Your task to perform on an android device: What's the weather today? Image 0: 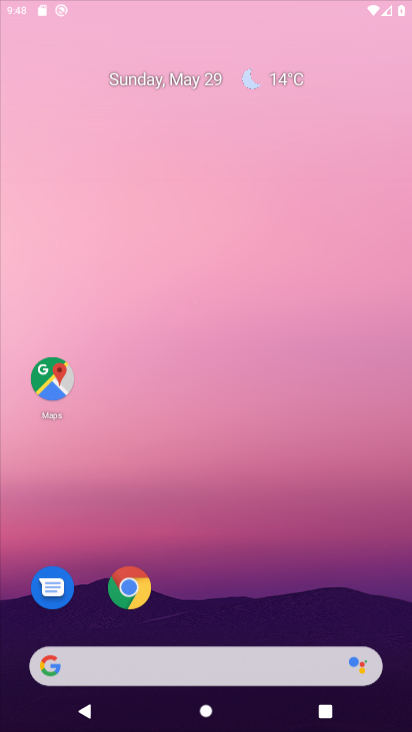
Step 0: click (186, 139)
Your task to perform on an android device: What's the weather today? Image 1: 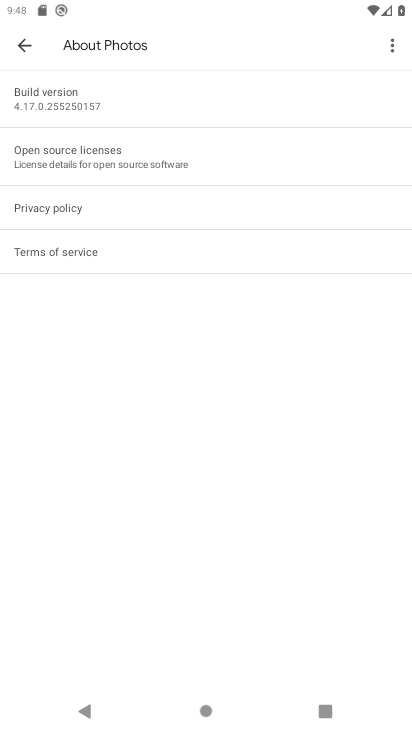
Step 1: press back button
Your task to perform on an android device: What's the weather today? Image 2: 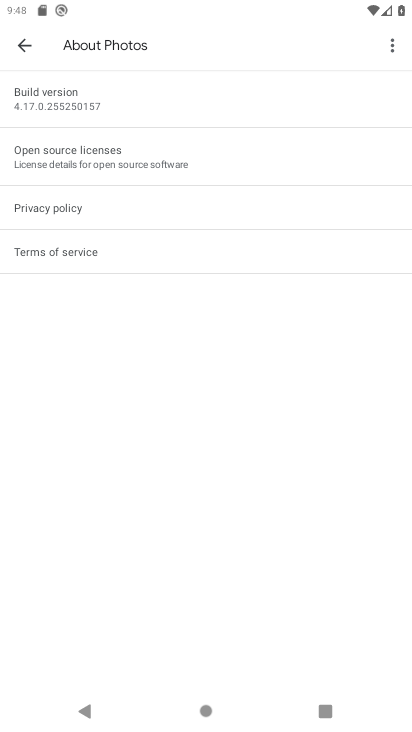
Step 2: press back button
Your task to perform on an android device: What's the weather today? Image 3: 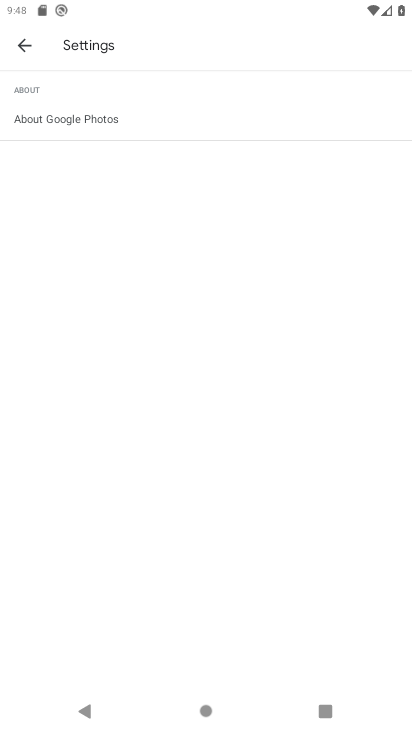
Step 3: press back button
Your task to perform on an android device: What's the weather today? Image 4: 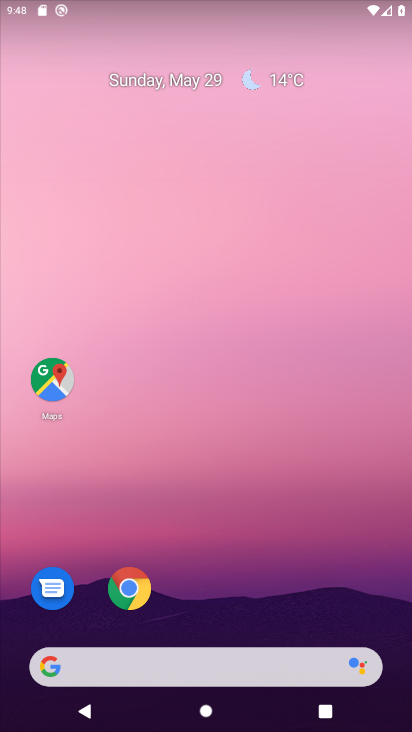
Step 4: click (24, 84)
Your task to perform on an android device: What's the weather today? Image 5: 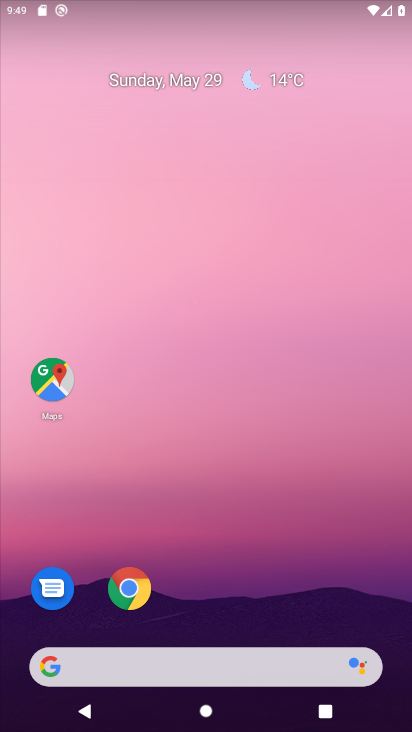
Step 5: drag from (5, 192) to (406, 428)
Your task to perform on an android device: What's the weather today? Image 6: 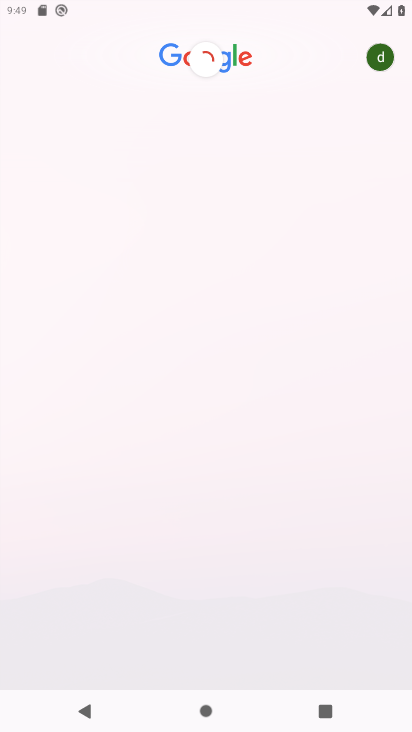
Step 6: drag from (30, 160) to (377, 436)
Your task to perform on an android device: What's the weather today? Image 7: 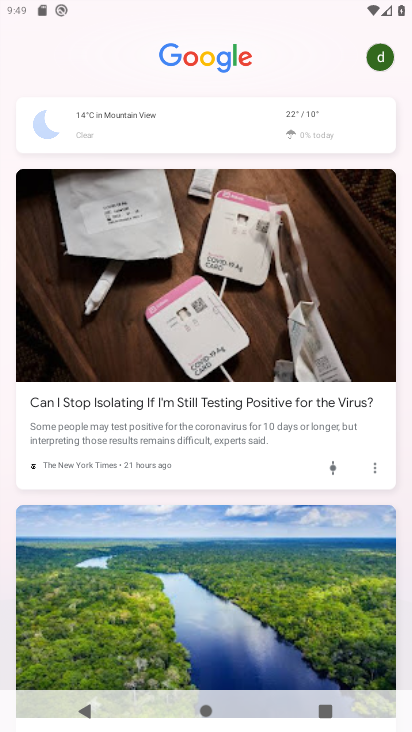
Step 7: click (161, 125)
Your task to perform on an android device: What's the weather today? Image 8: 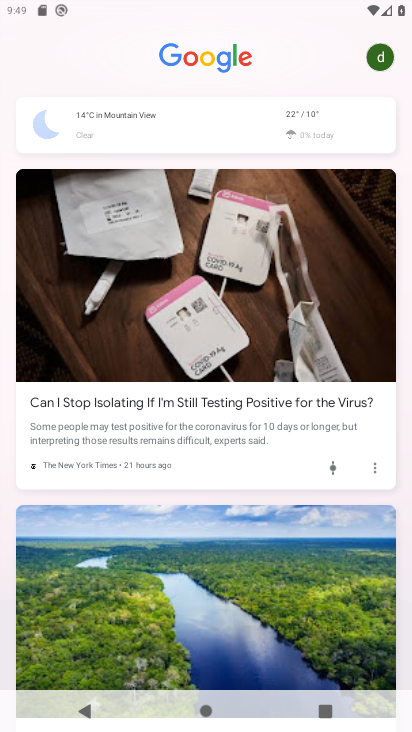
Step 8: click (162, 121)
Your task to perform on an android device: What's the weather today? Image 9: 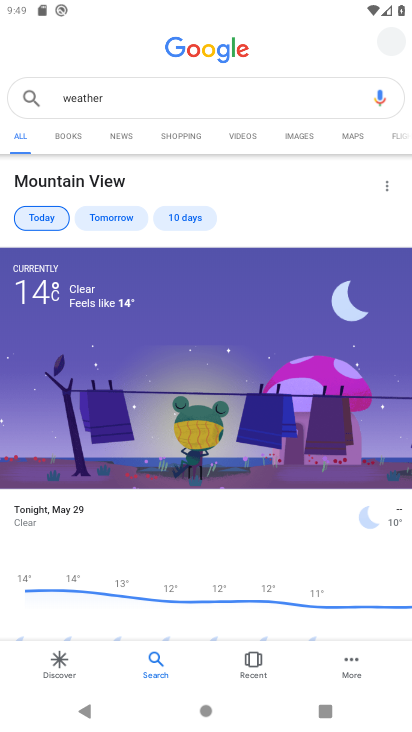
Step 9: task complete